Your task to perform on an android device: turn on airplane mode Image 0: 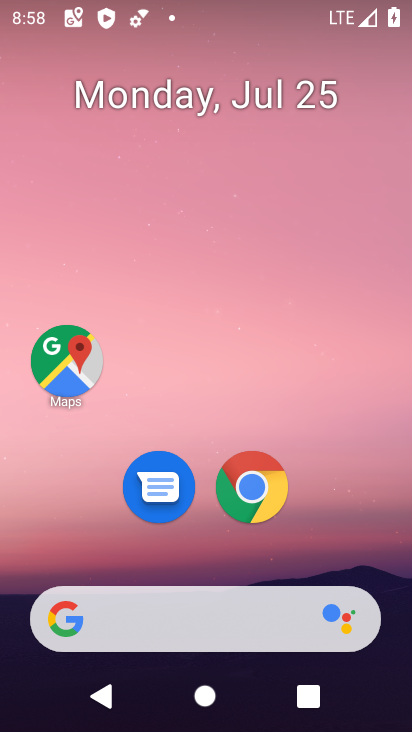
Step 0: drag from (346, 11) to (265, 476)
Your task to perform on an android device: turn on airplane mode Image 1: 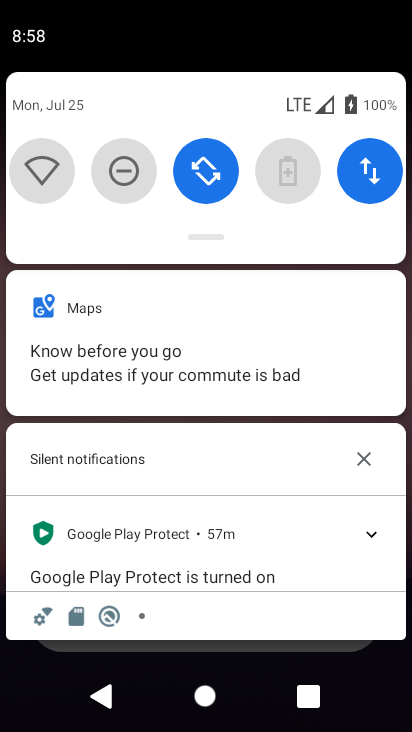
Step 1: drag from (219, 223) to (219, 643)
Your task to perform on an android device: turn on airplane mode Image 2: 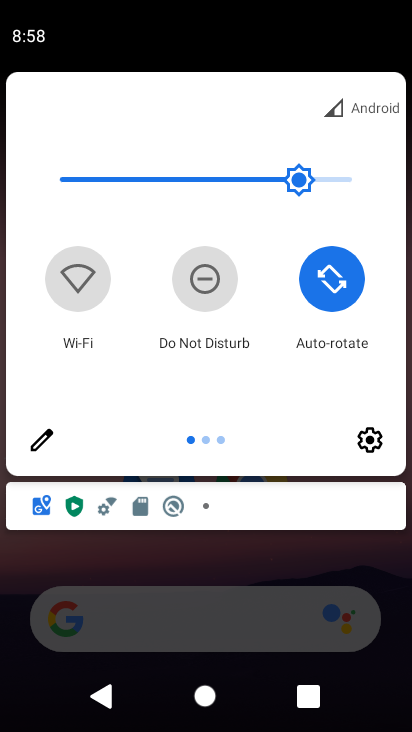
Step 2: drag from (359, 277) to (0, 266)
Your task to perform on an android device: turn on airplane mode Image 3: 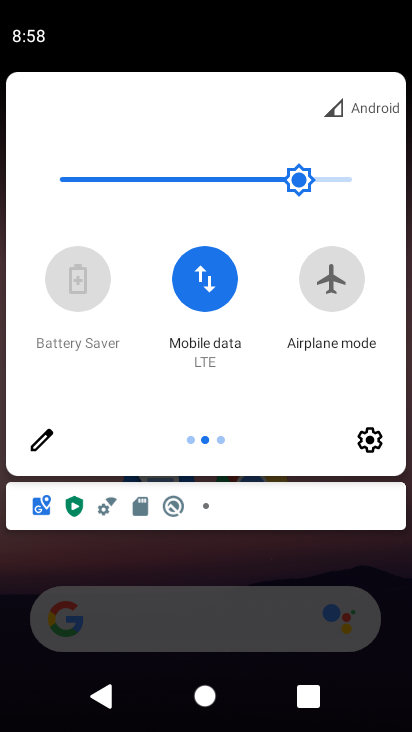
Step 3: click (321, 282)
Your task to perform on an android device: turn on airplane mode Image 4: 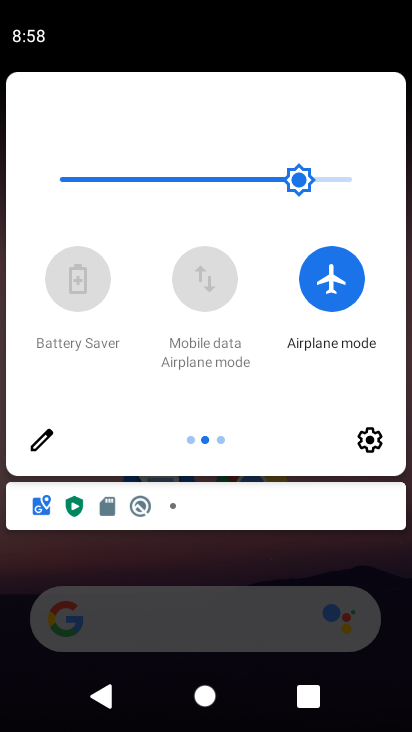
Step 4: task complete